Your task to perform on an android device: empty trash in google photos Image 0: 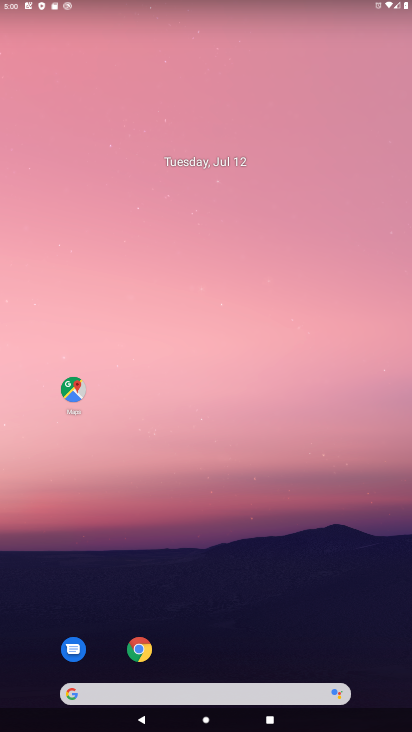
Step 0: drag from (174, 689) to (193, 149)
Your task to perform on an android device: empty trash in google photos Image 1: 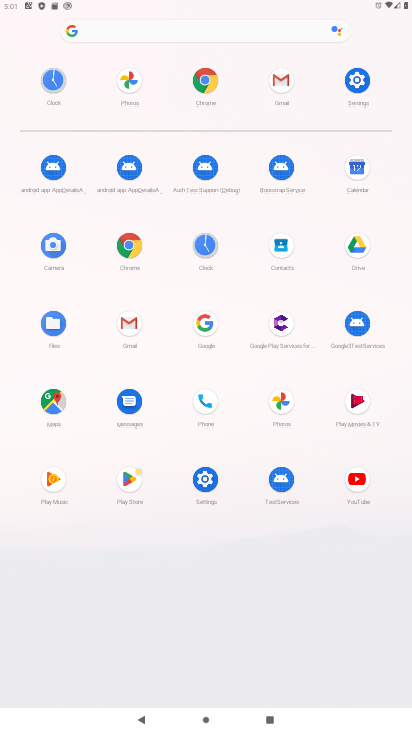
Step 1: click (281, 400)
Your task to perform on an android device: empty trash in google photos Image 2: 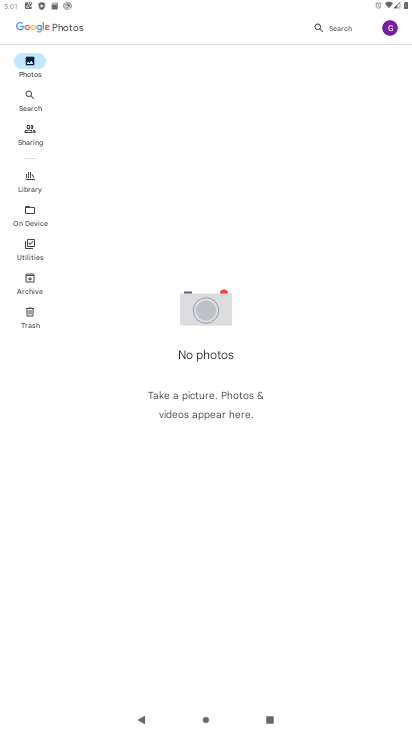
Step 2: click (31, 318)
Your task to perform on an android device: empty trash in google photos Image 3: 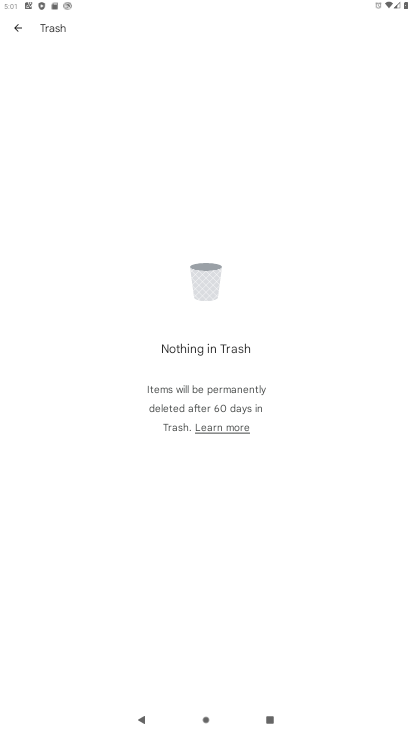
Step 3: task complete